Your task to perform on an android device: change keyboard looks Image 0: 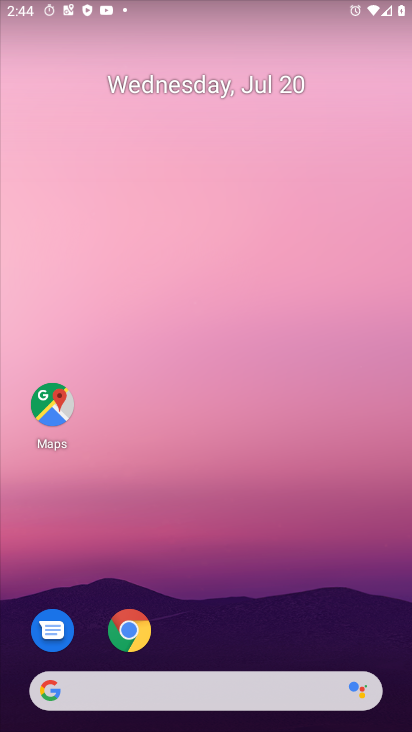
Step 0: drag from (181, 692) to (352, 124)
Your task to perform on an android device: change keyboard looks Image 1: 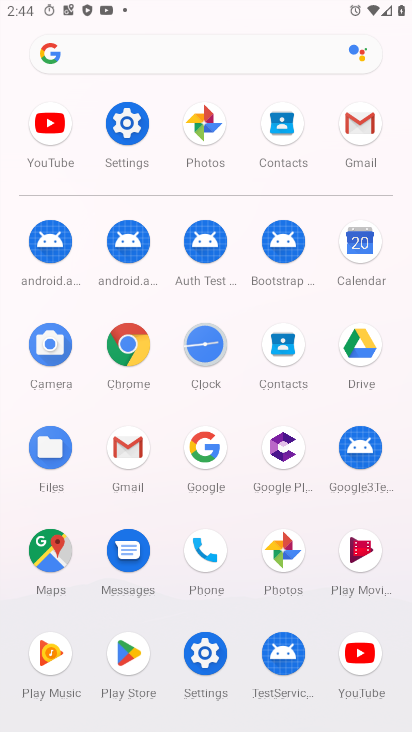
Step 1: click (122, 120)
Your task to perform on an android device: change keyboard looks Image 2: 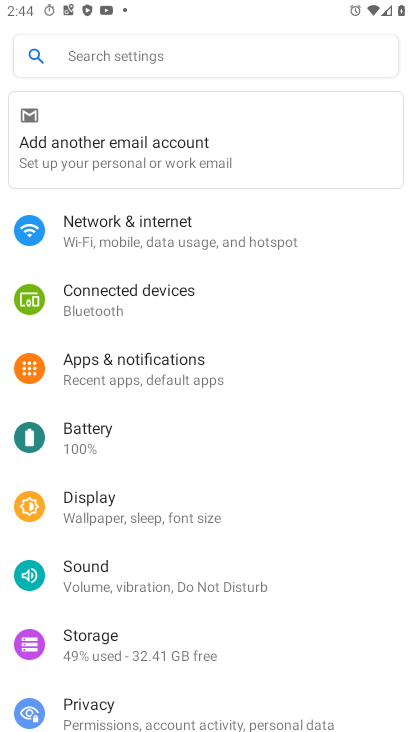
Step 2: drag from (258, 631) to (389, 94)
Your task to perform on an android device: change keyboard looks Image 3: 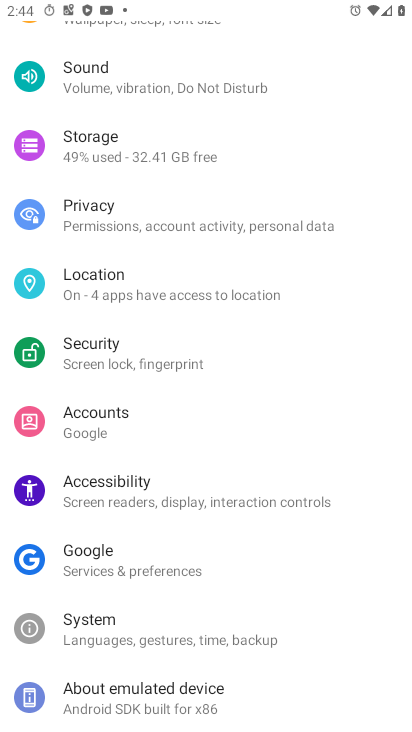
Step 3: drag from (243, 593) to (357, 99)
Your task to perform on an android device: change keyboard looks Image 4: 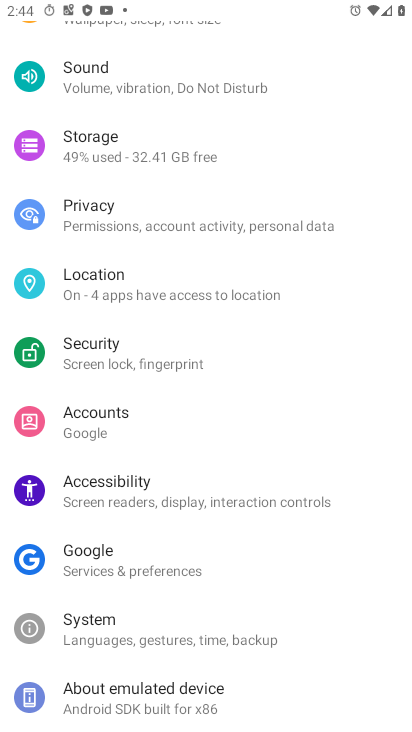
Step 4: click (114, 624)
Your task to perform on an android device: change keyboard looks Image 5: 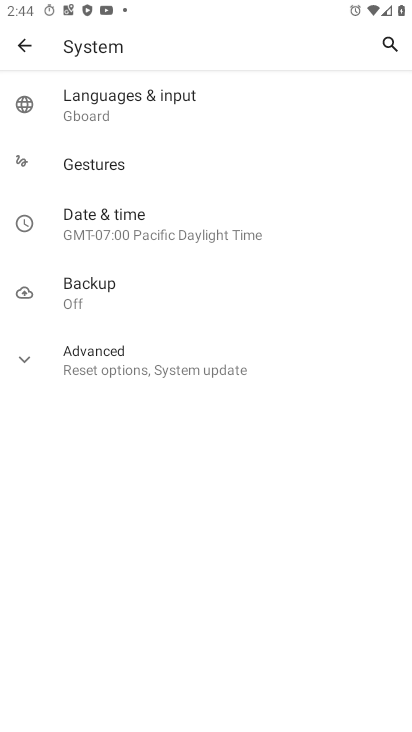
Step 5: click (126, 110)
Your task to perform on an android device: change keyboard looks Image 6: 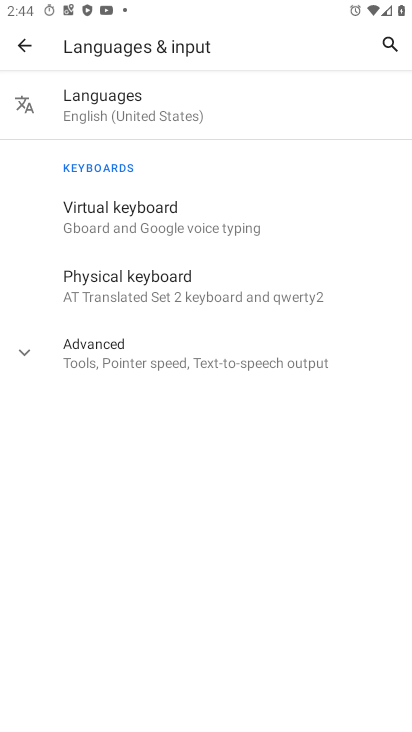
Step 6: click (114, 228)
Your task to perform on an android device: change keyboard looks Image 7: 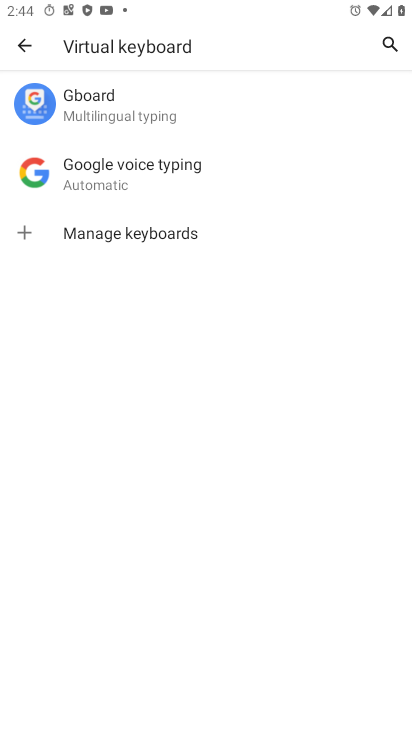
Step 7: click (103, 103)
Your task to perform on an android device: change keyboard looks Image 8: 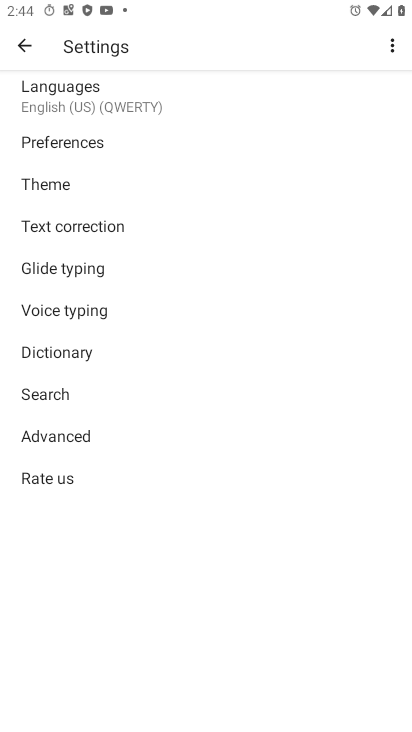
Step 8: click (66, 177)
Your task to perform on an android device: change keyboard looks Image 9: 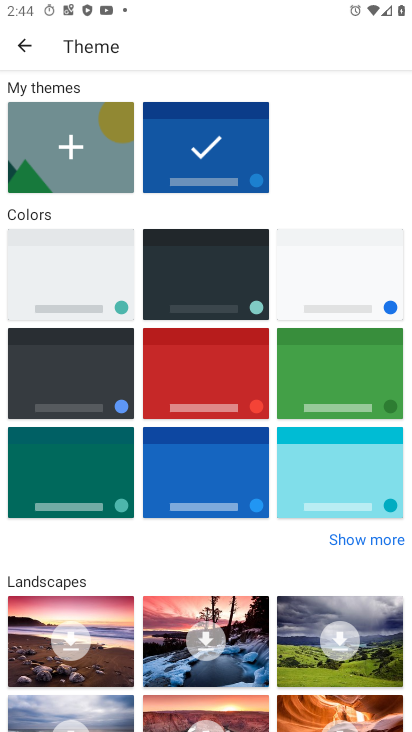
Step 9: click (88, 461)
Your task to perform on an android device: change keyboard looks Image 10: 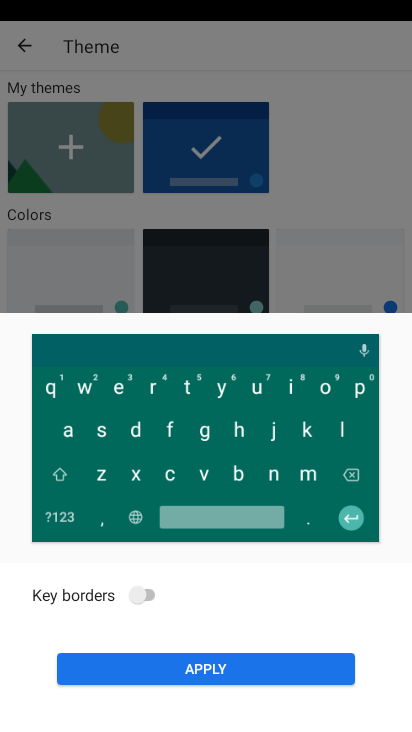
Step 10: click (203, 671)
Your task to perform on an android device: change keyboard looks Image 11: 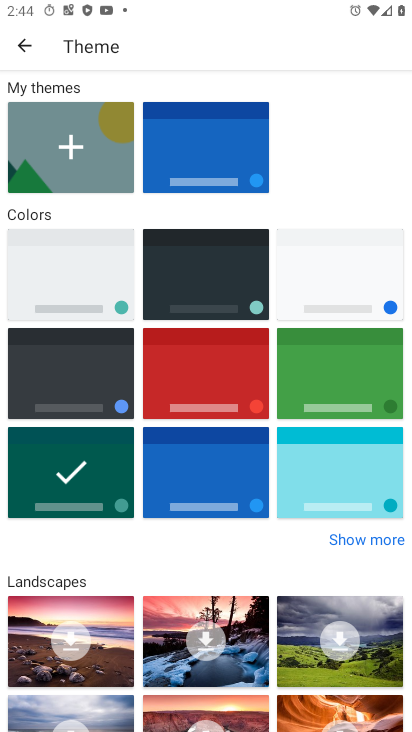
Step 11: task complete